Your task to perform on an android device: turn off location history Image 0: 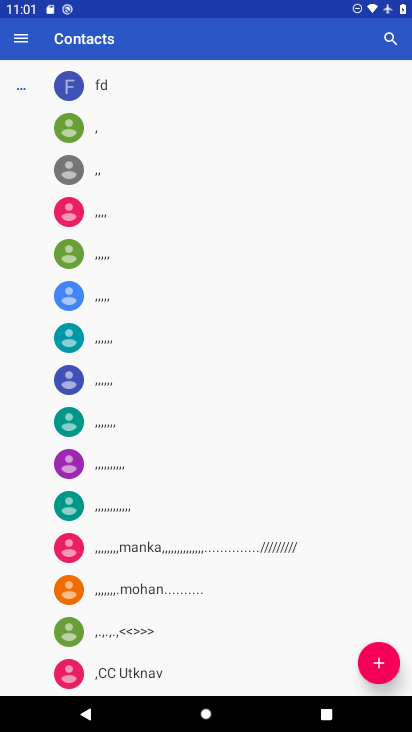
Step 0: press home button
Your task to perform on an android device: turn off location history Image 1: 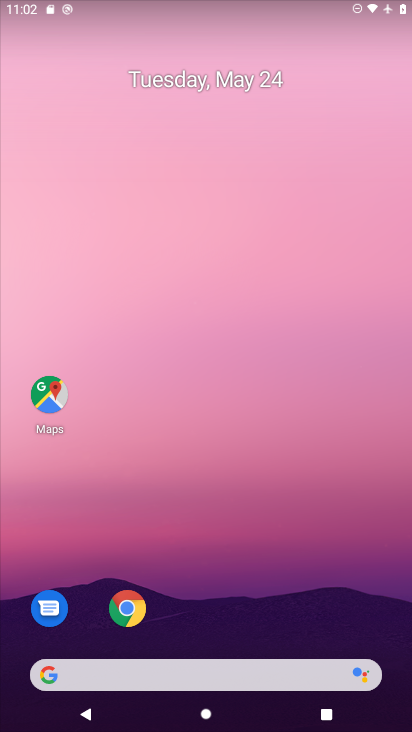
Step 1: click (50, 394)
Your task to perform on an android device: turn off location history Image 2: 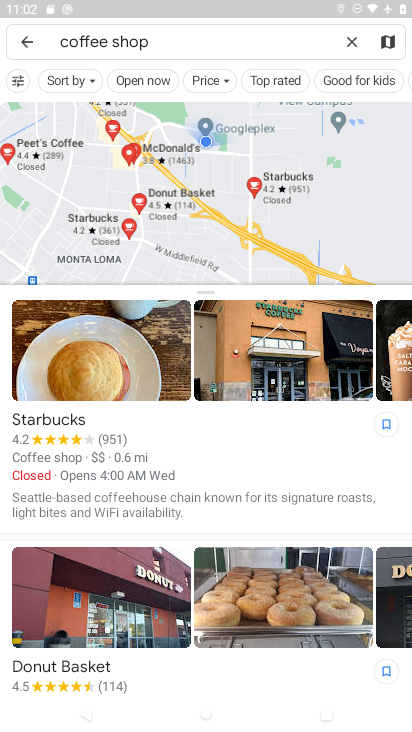
Step 2: click (349, 40)
Your task to perform on an android device: turn off location history Image 3: 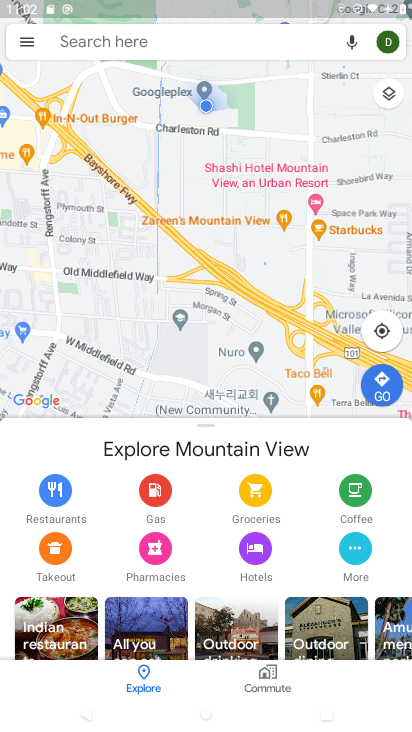
Step 3: click (27, 43)
Your task to perform on an android device: turn off location history Image 4: 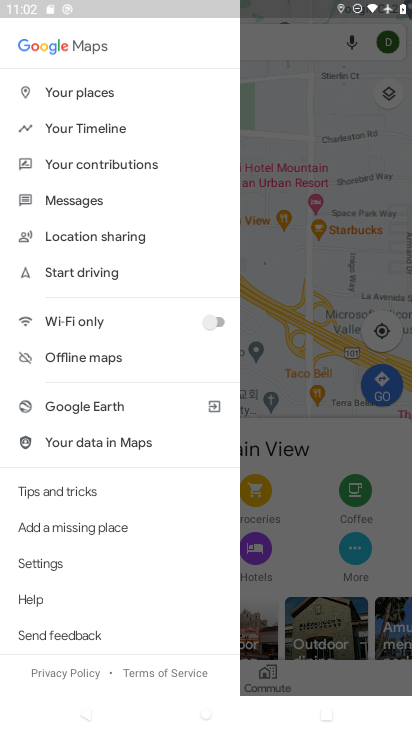
Step 4: click (41, 566)
Your task to perform on an android device: turn off location history Image 5: 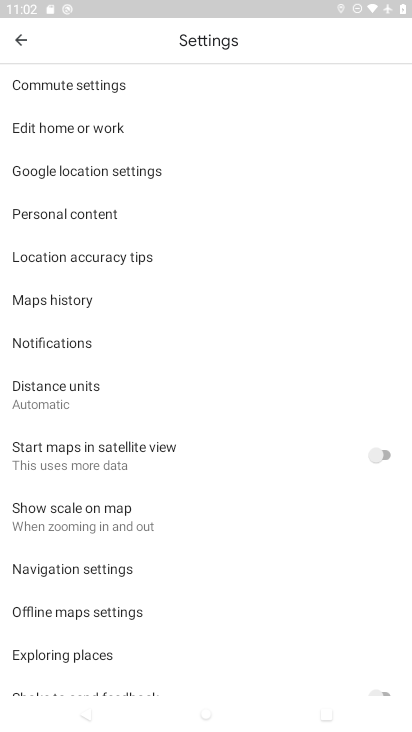
Step 5: click (99, 219)
Your task to perform on an android device: turn off location history Image 6: 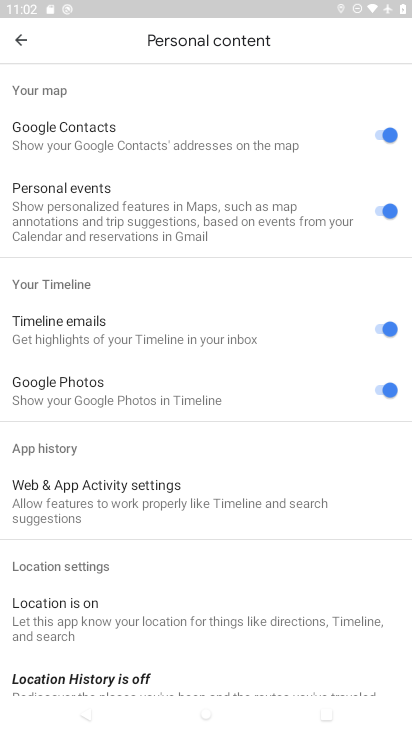
Step 6: drag from (247, 642) to (301, 245)
Your task to perform on an android device: turn off location history Image 7: 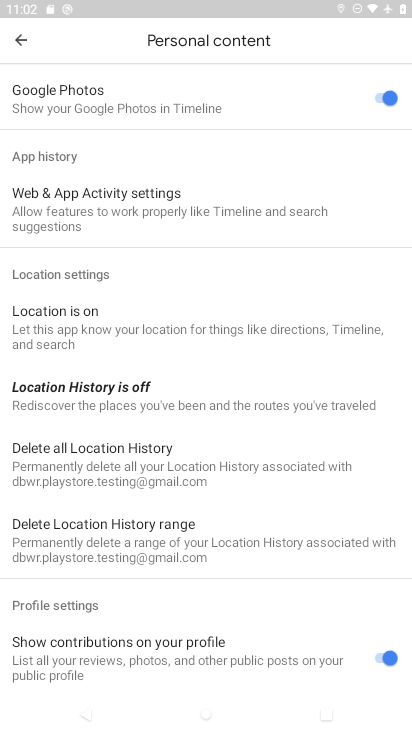
Step 7: click (59, 400)
Your task to perform on an android device: turn off location history Image 8: 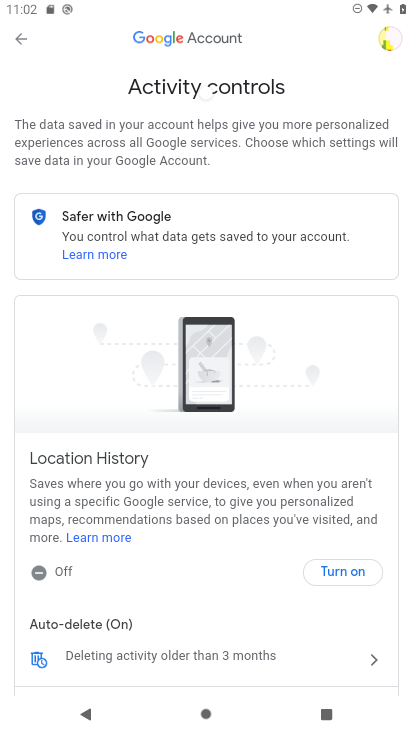
Step 8: task complete